Your task to perform on an android device: remove spam from my inbox in the gmail app Image 0: 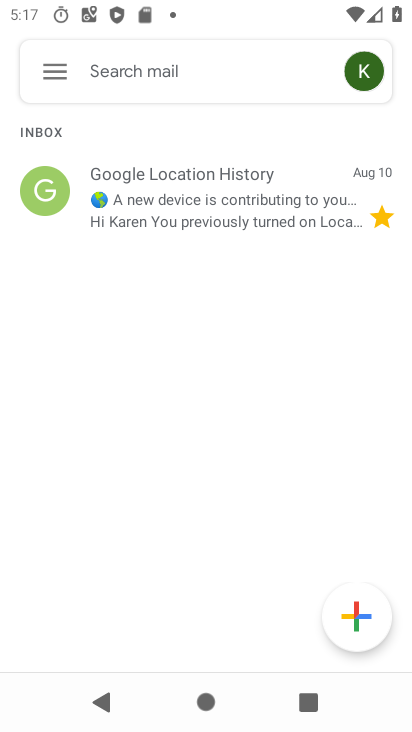
Step 0: press home button
Your task to perform on an android device: remove spam from my inbox in the gmail app Image 1: 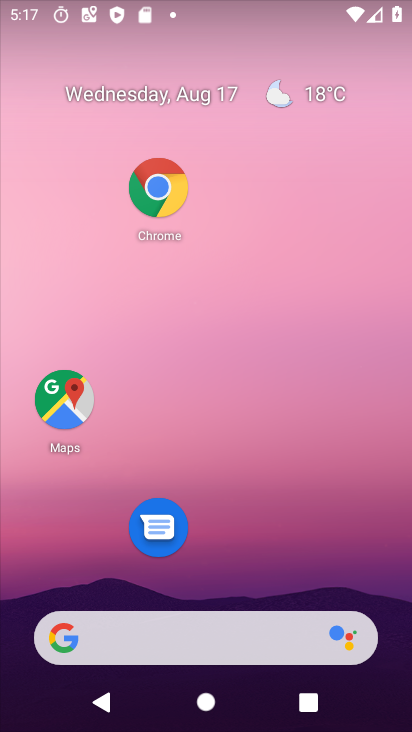
Step 1: drag from (255, 562) to (306, 25)
Your task to perform on an android device: remove spam from my inbox in the gmail app Image 2: 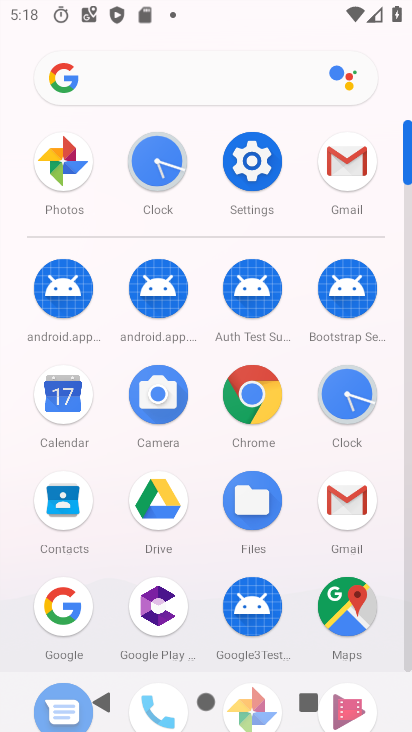
Step 2: click (349, 152)
Your task to perform on an android device: remove spam from my inbox in the gmail app Image 3: 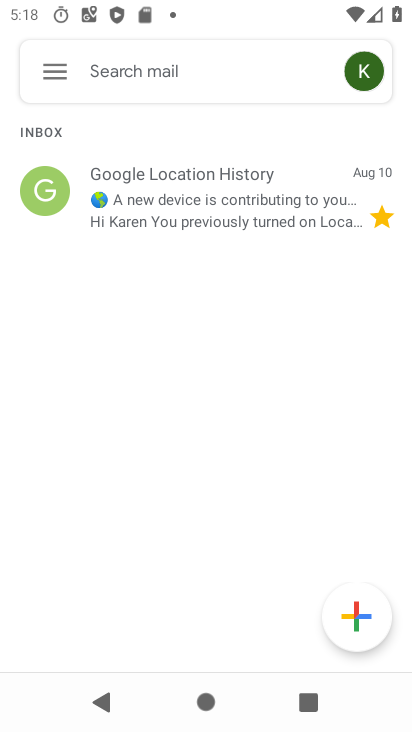
Step 3: click (60, 63)
Your task to perform on an android device: remove spam from my inbox in the gmail app Image 4: 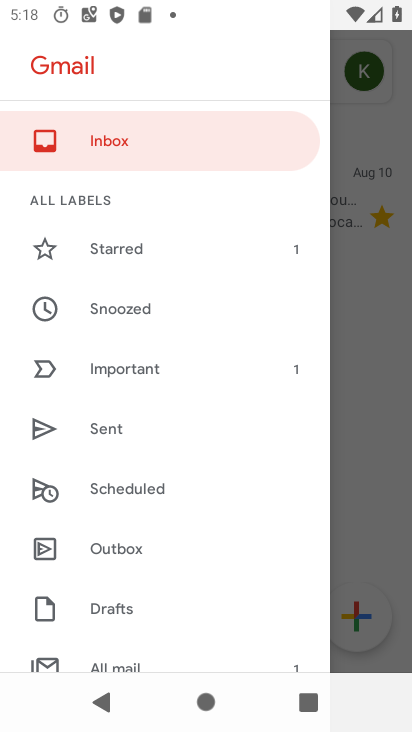
Step 4: drag from (143, 609) to (237, 109)
Your task to perform on an android device: remove spam from my inbox in the gmail app Image 5: 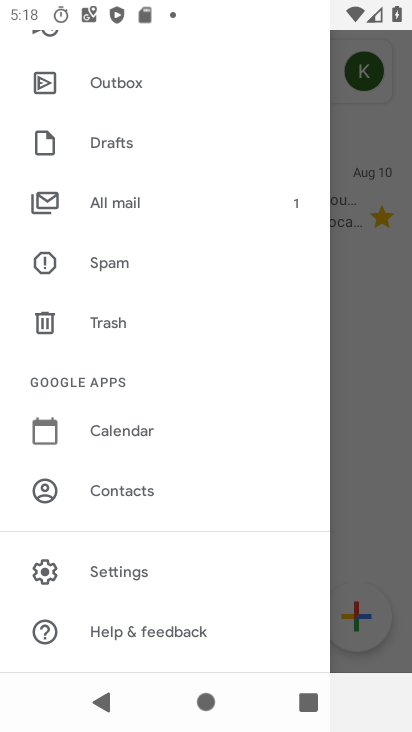
Step 5: click (155, 261)
Your task to perform on an android device: remove spam from my inbox in the gmail app Image 6: 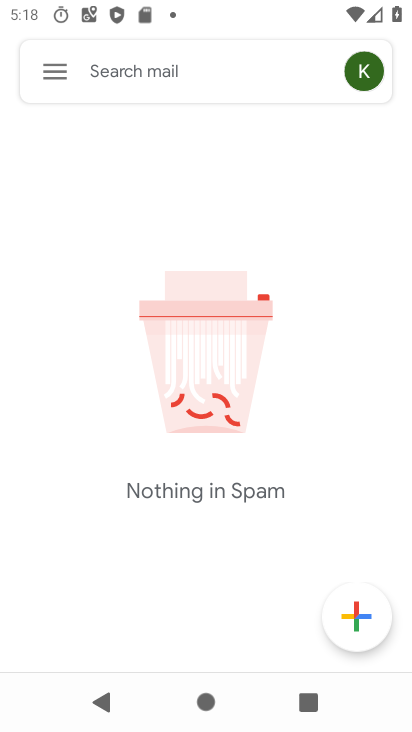
Step 6: task complete